Your task to perform on an android device: Toggle the flashlight Image 0: 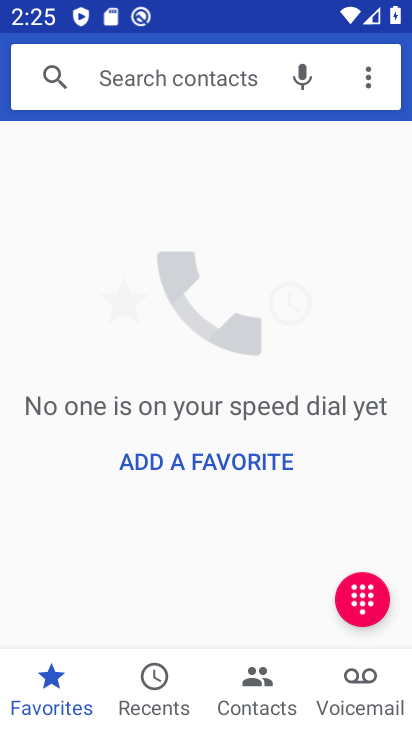
Step 0: press home button
Your task to perform on an android device: Toggle the flashlight Image 1: 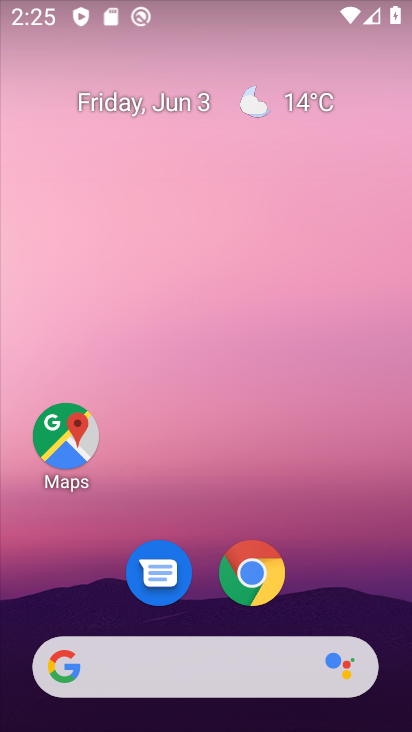
Step 1: task complete